Your task to perform on an android device: When is my next appointment? Image 0: 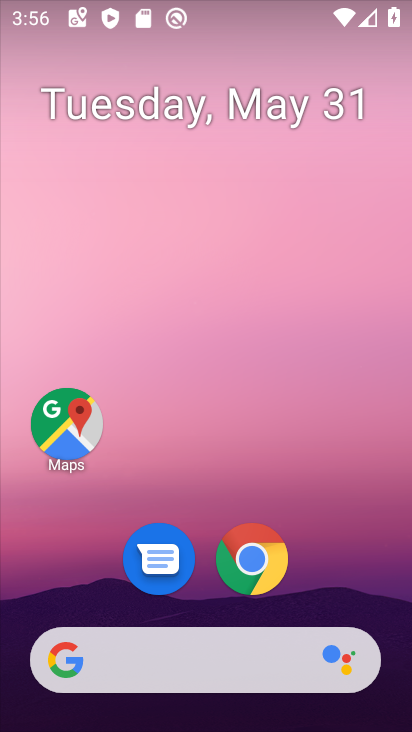
Step 0: drag from (212, 704) to (214, 131)
Your task to perform on an android device: When is my next appointment? Image 1: 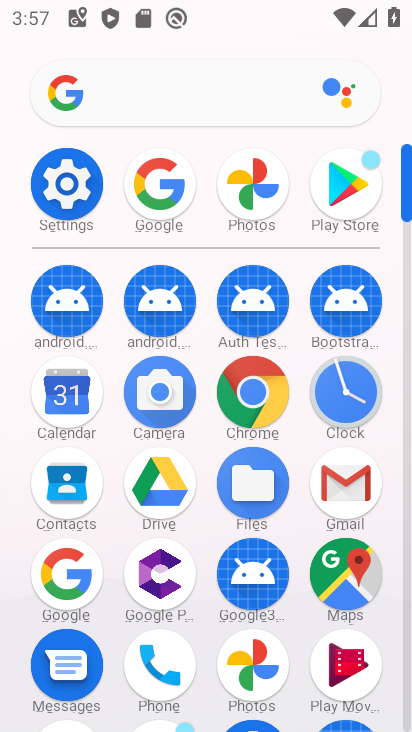
Step 1: click (70, 390)
Your task to perform on an android device: When is my next appointment? Image 2: 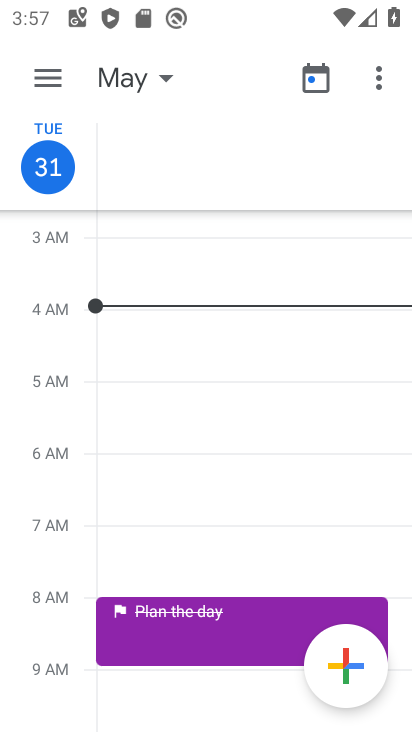
Step 2: click (157, 66)
Your task to perform on an android device: When is my next appointment? Image 3: 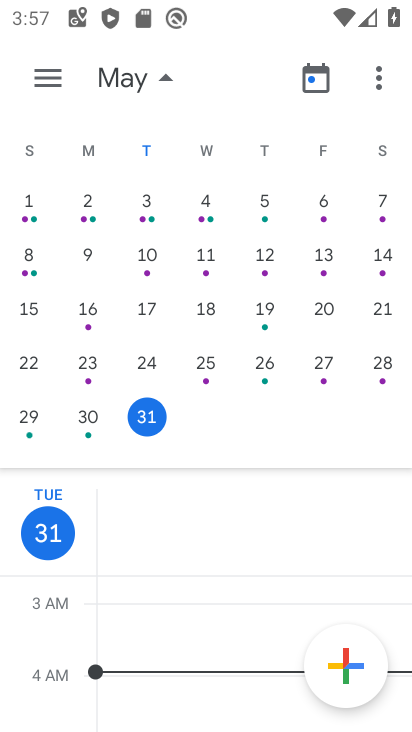
Step 3: drag from (310, 307) to (34, 305)
Your task to perform on an android device: When is my next appointment? Image 4: 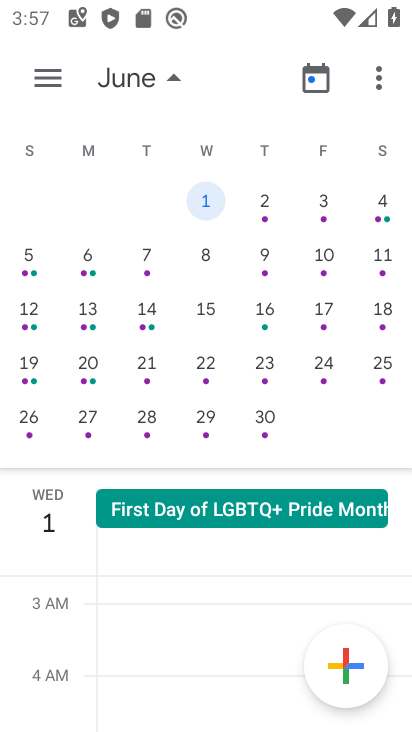
Step 4: click (206, 199)
Your task to perform on an android device: When is my next appointment? Image 5: 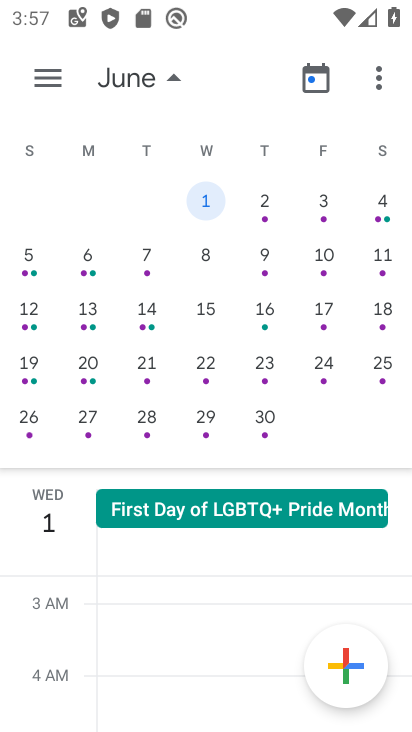
Step 5: click (209, 197)
Your task to perform on an android device: When is my next appointment? Image 6: 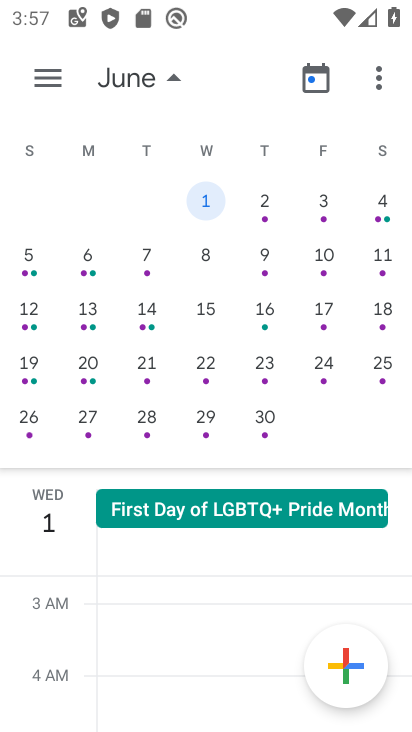
Step 6: click (174, 77)
Your task to perform on an android device: When is my next appointment? Image 7: 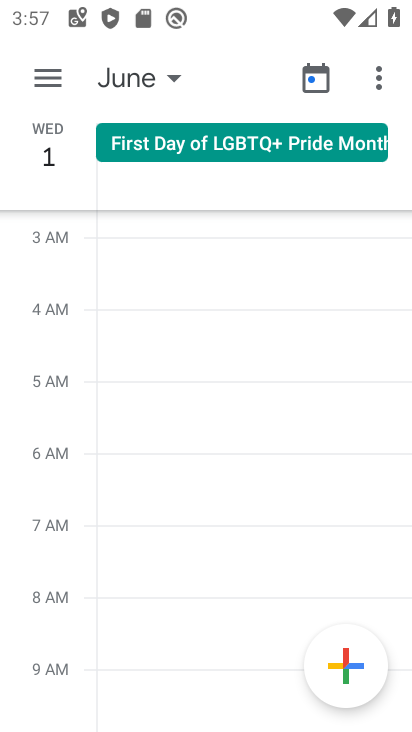
Step 7: task complete